Your task to perform on an android device: Add "logitech g910" to the cart on ebay.com Image 0: 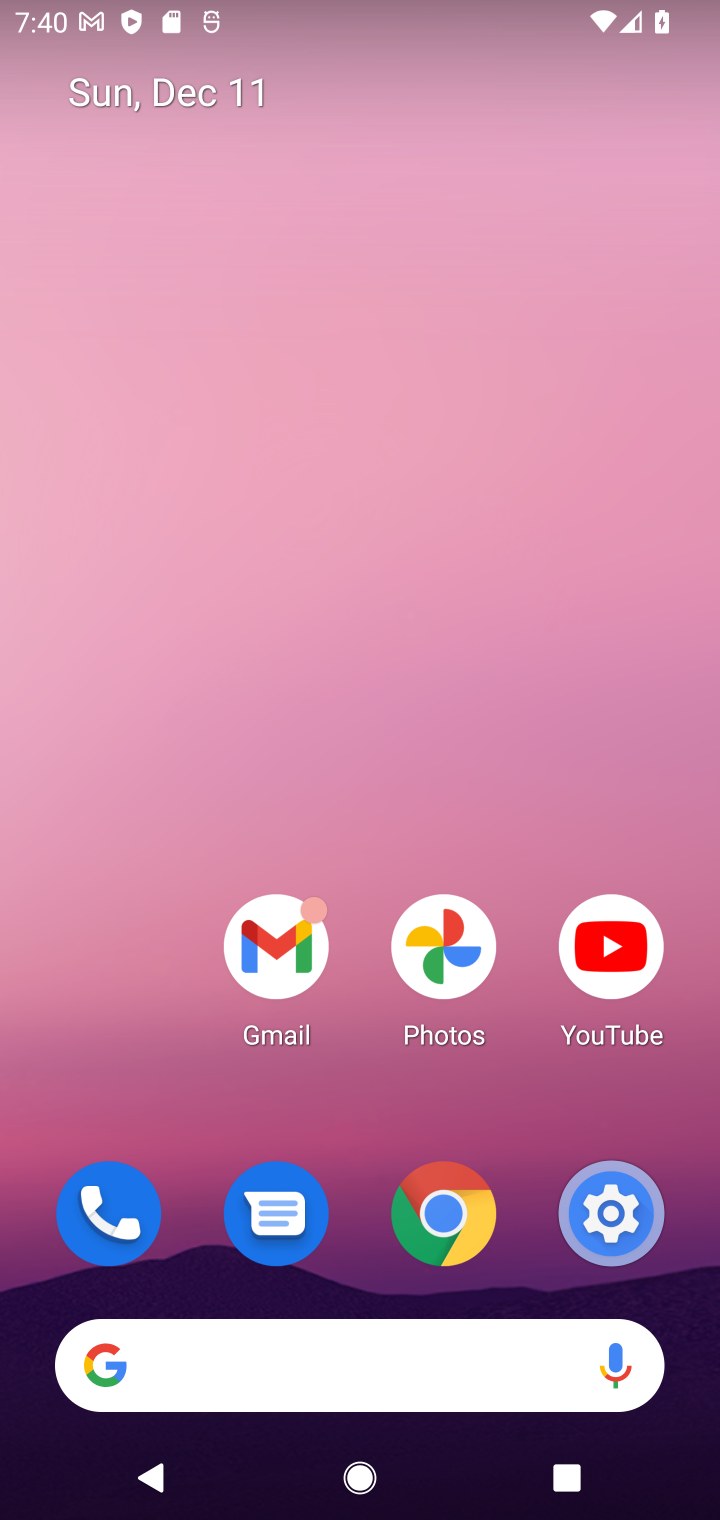
Step 0: click (436, 1365)
Your task to perform on an android device: Add "logitech g910" to the cart on ebay.com Image 1: 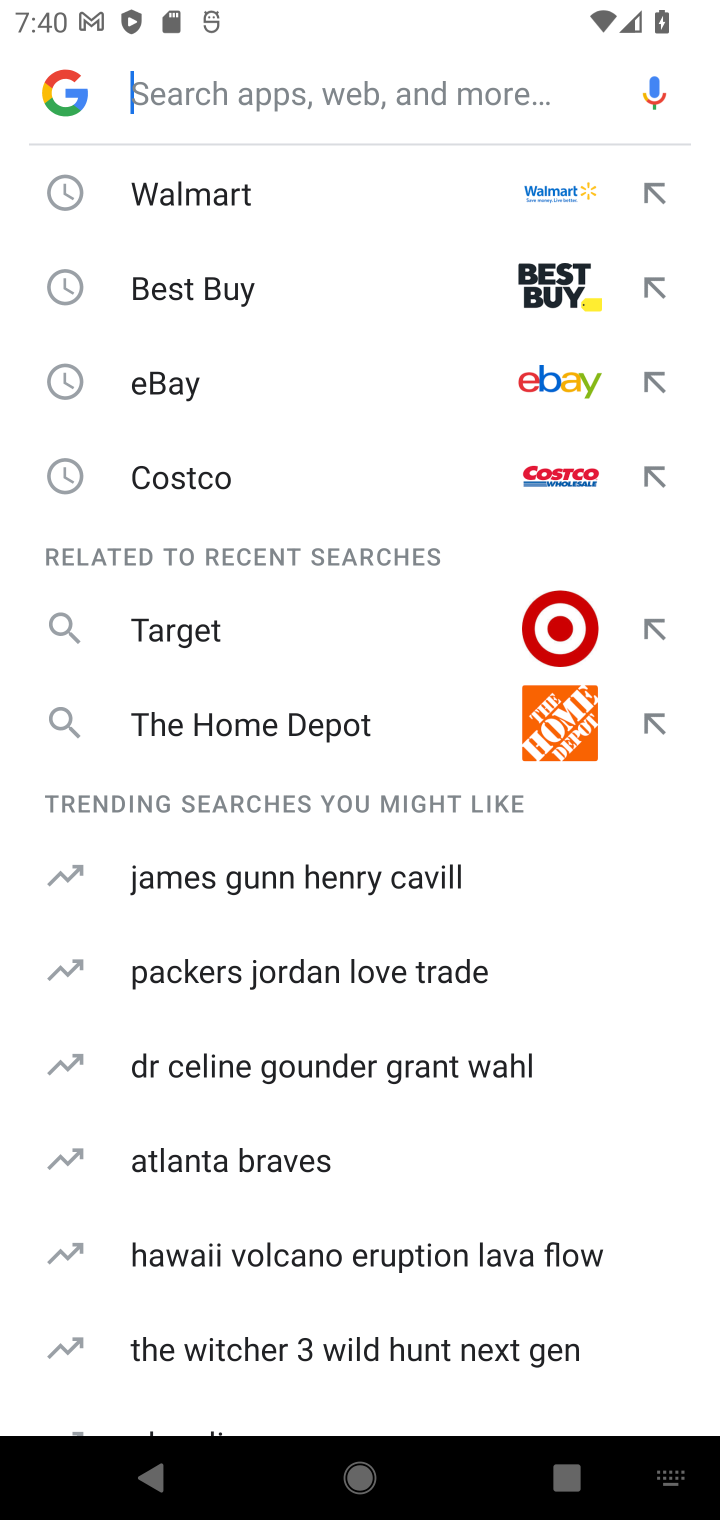
Step 1: type "ebay.com"
Your task to perform on an android device: Add "logitech g910" to the cart on ebay.com Image 2: 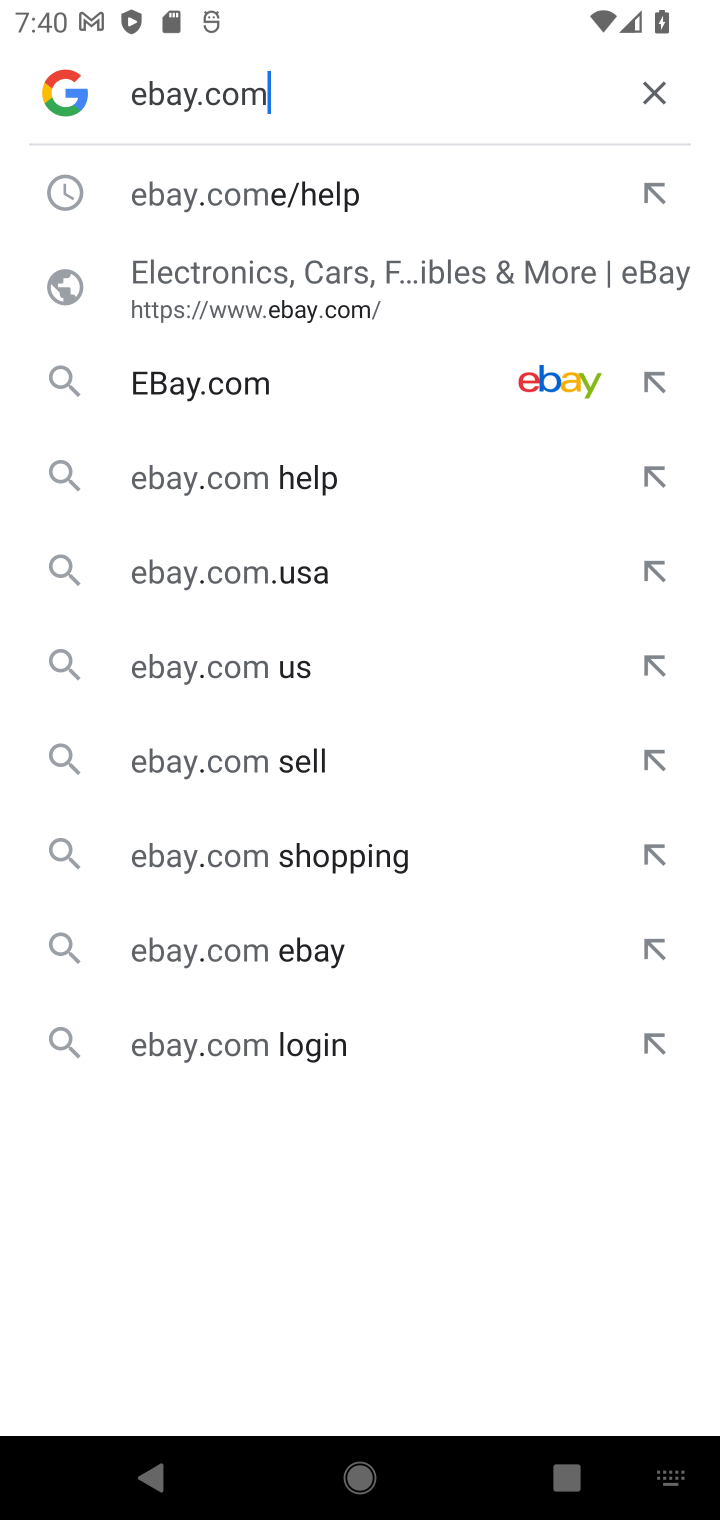
Step 2: click (362, 379)
Your task to perform on an android device: Add "logitech g910" to the cart on ebay.com Image 3: 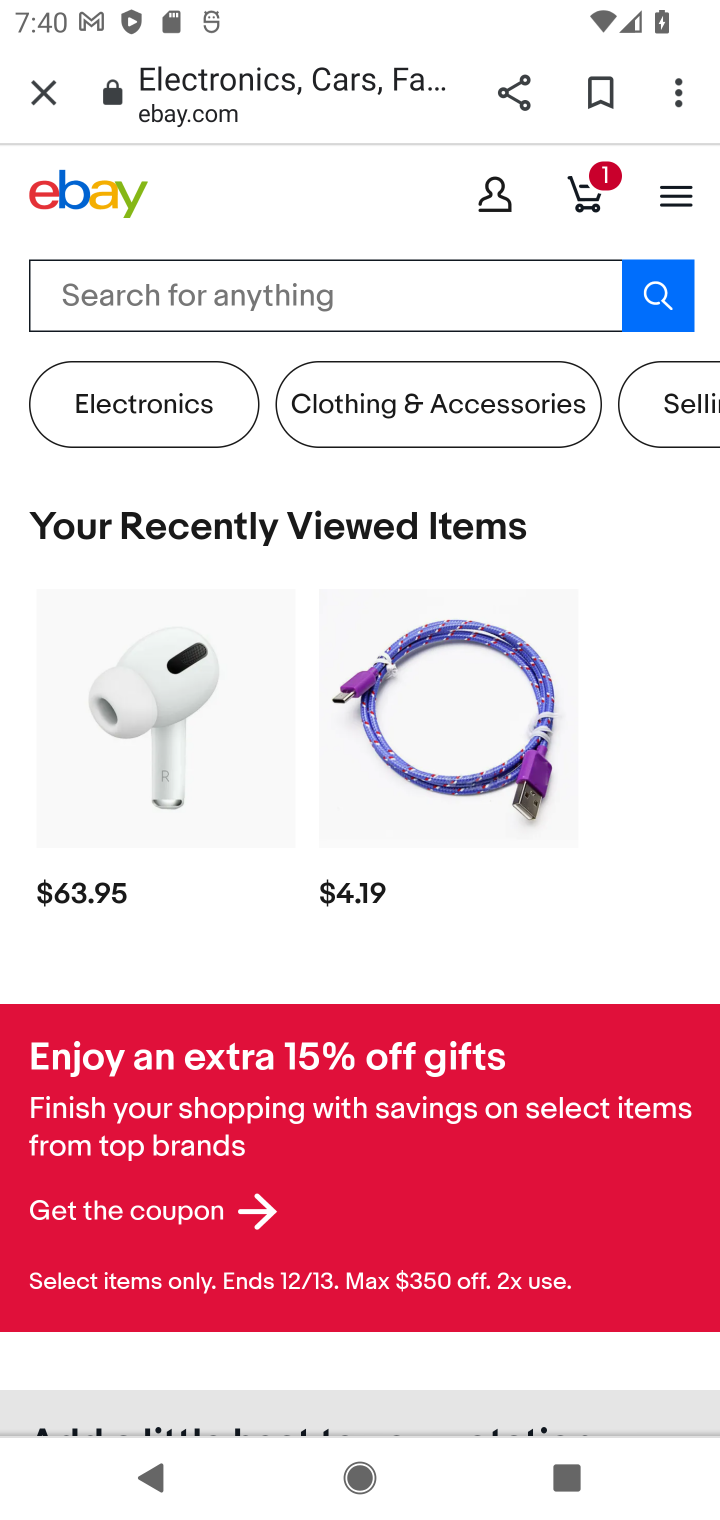
Step 3: click (260, 307)
Your task to perform on an android device: Add "logitech g910" to the cart on ebay.com Image 4: 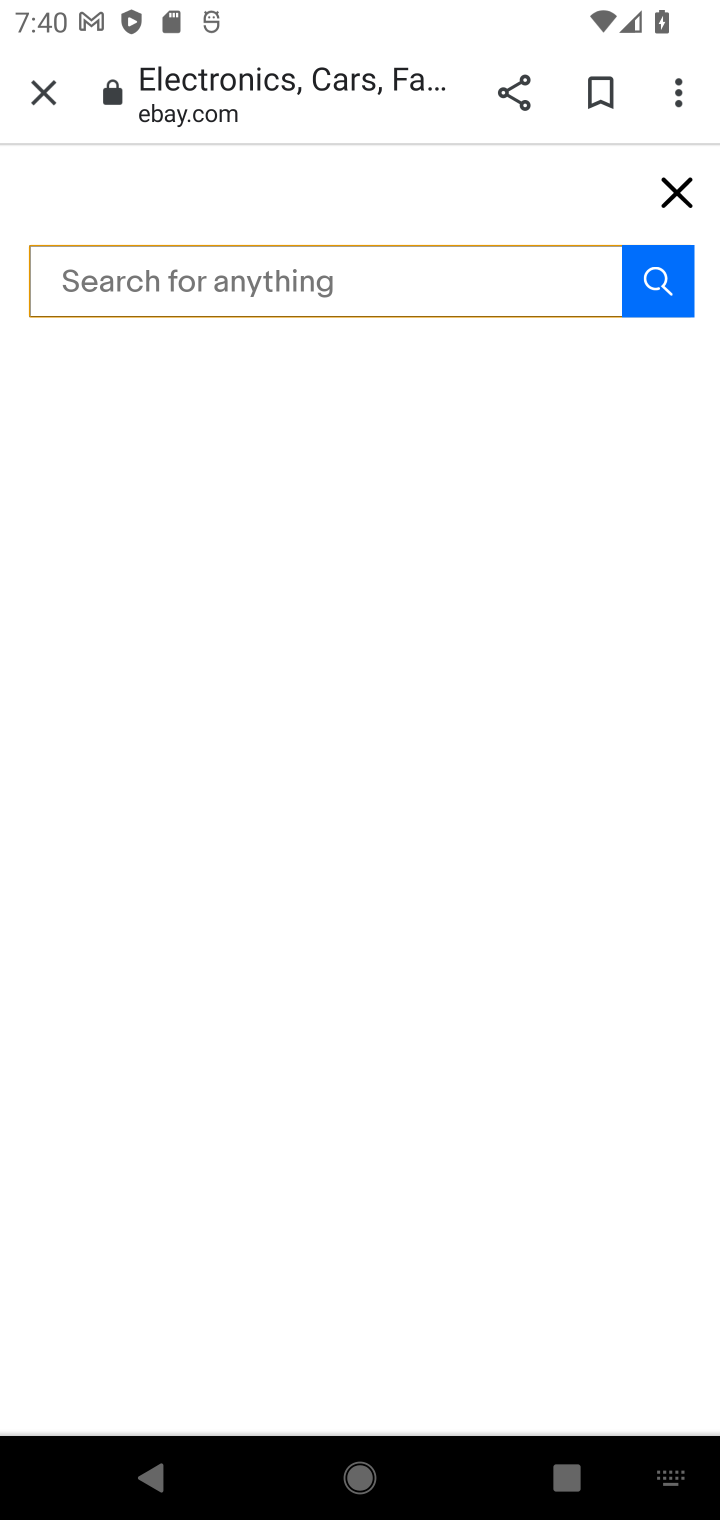
Step 4: type "logitech g910"
Your task to perform on an android device: Add "logitech g910" to the cart on ebay.com Image 5: 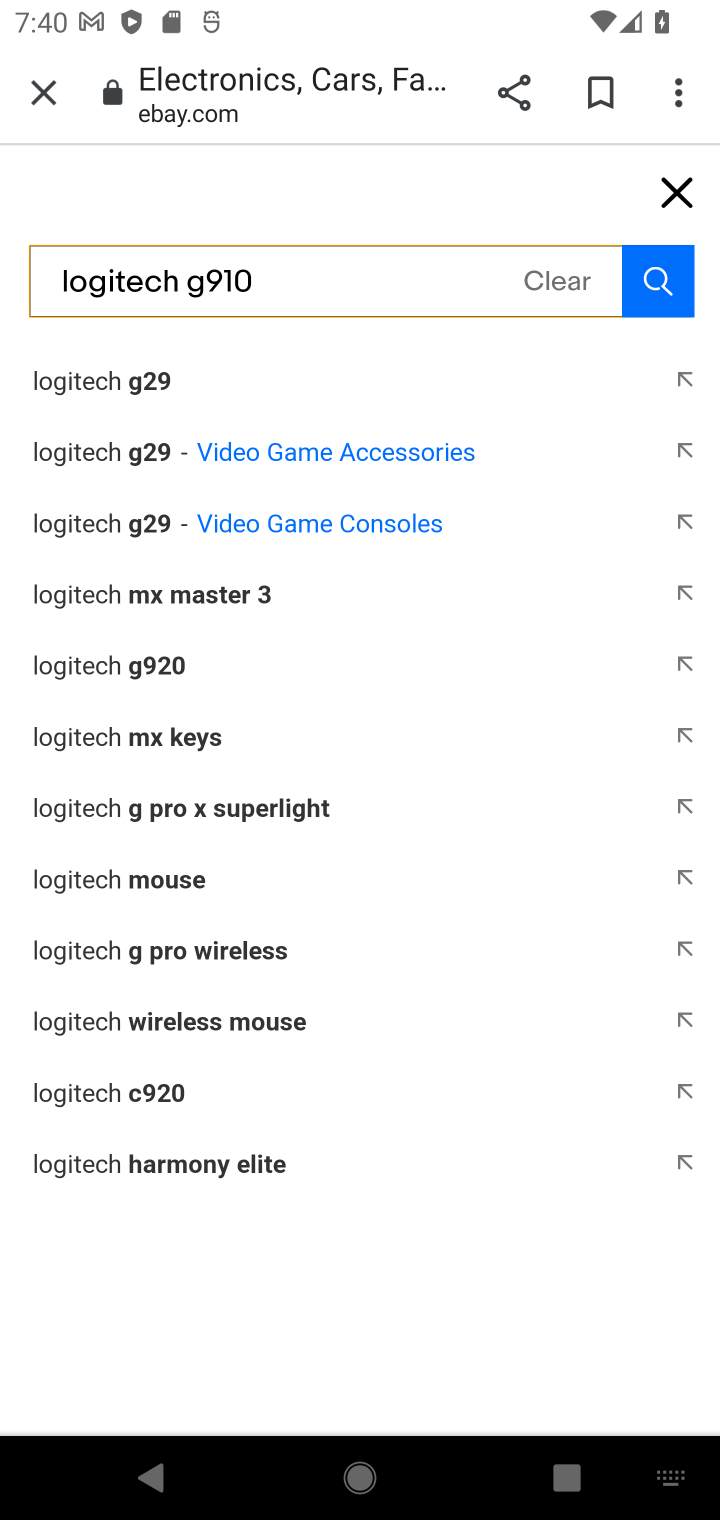
Step 5: click (663, 286)
Your task to perform on an android device: Add "logitech g910" to the cart on ebay.com Image 6: 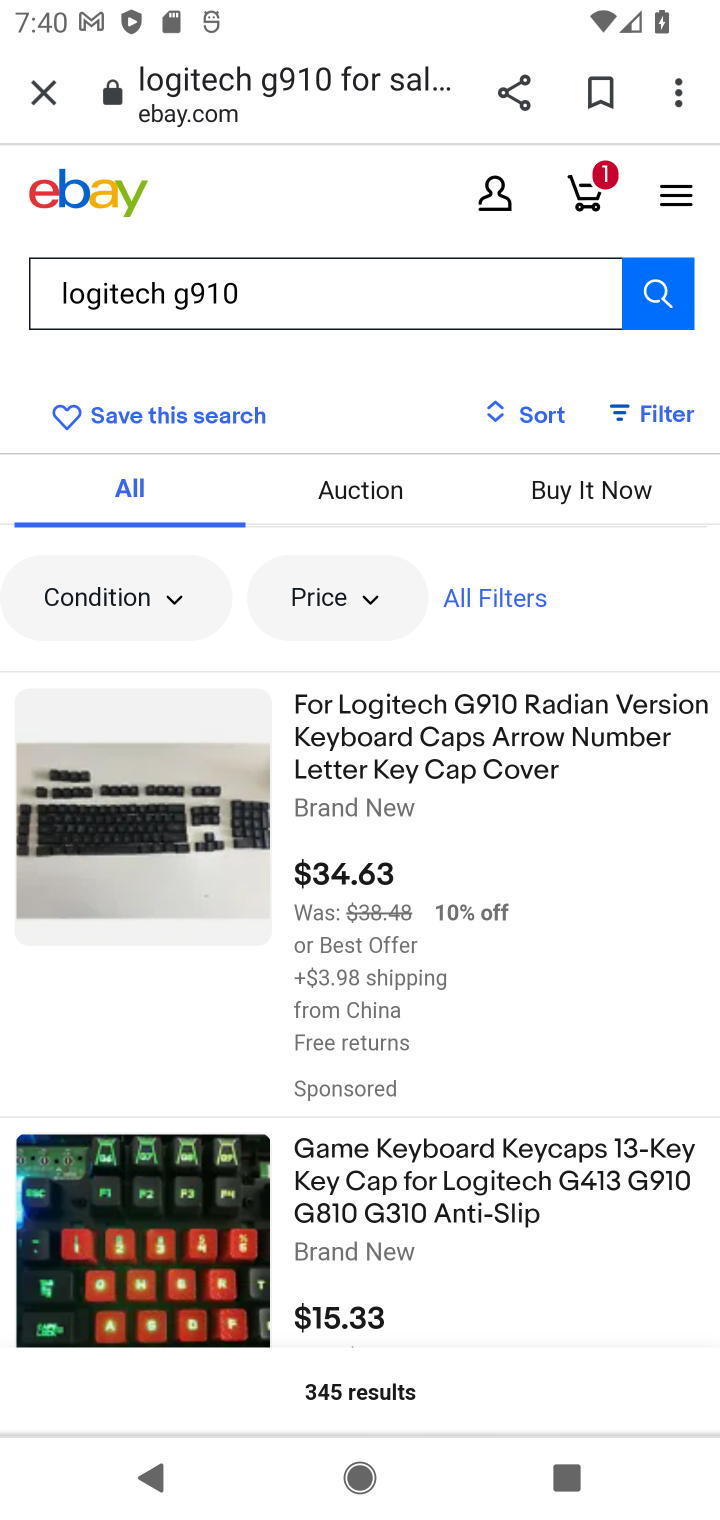
Step 6: click (375, 794)
Your task to perform on an android device: Add "logitech g910" to the cart on ebay.com Image 7: 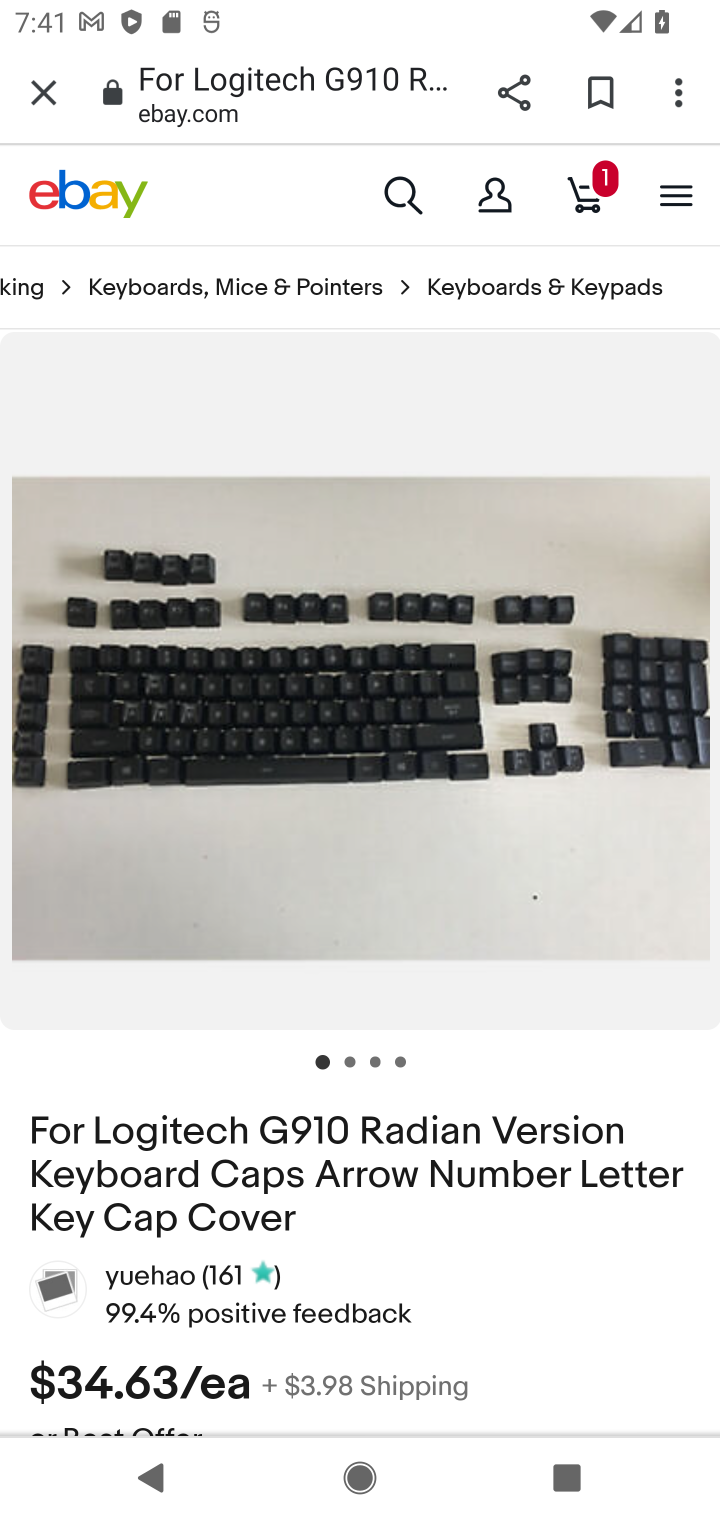
Step 7: drag from (354, 1133) to (382, 504)
Your task to perform on an android device: Add "logitech g910" to the cart on ebay.com Image 8: 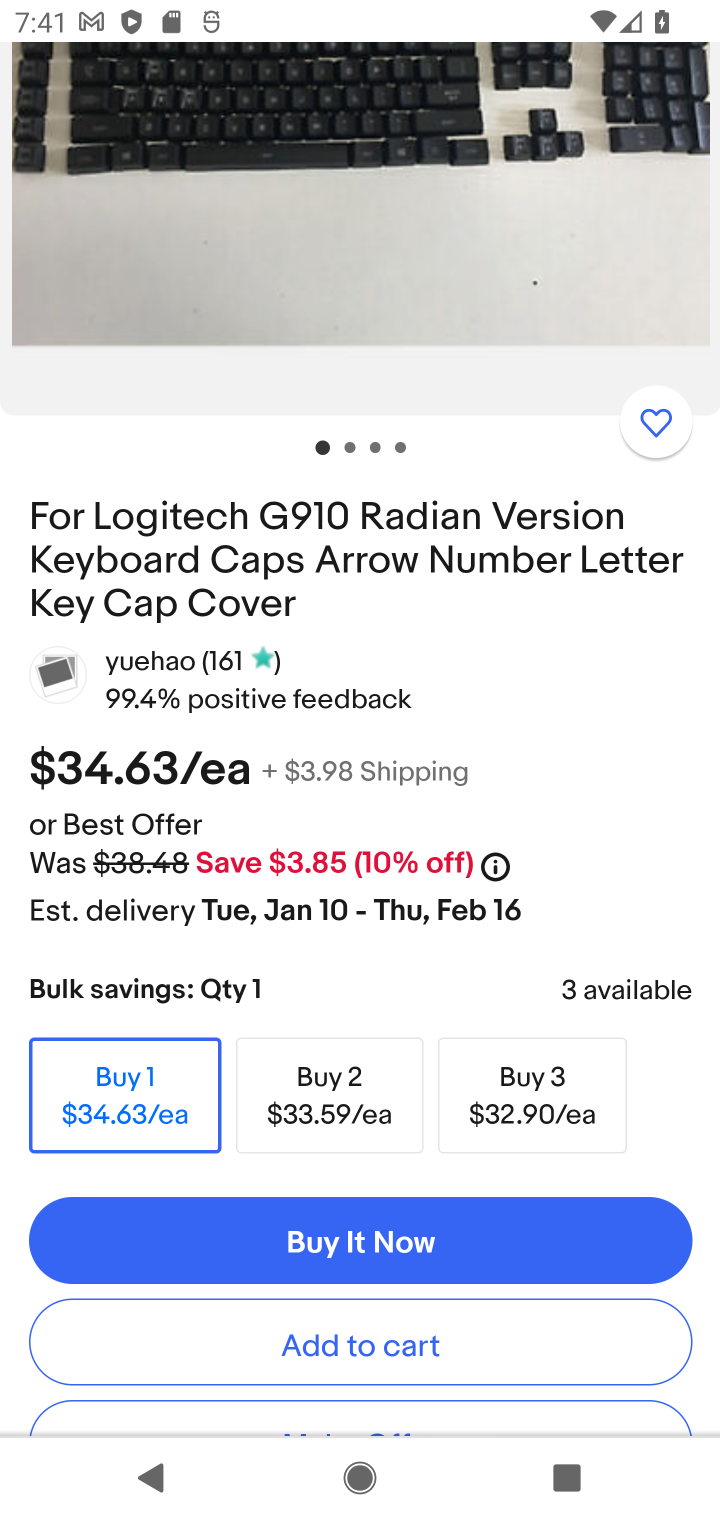
Step 8: click (422, 1302)
Your task to perform on an android device: Add "logitech g910" to the cart on ebay.com Image 9: 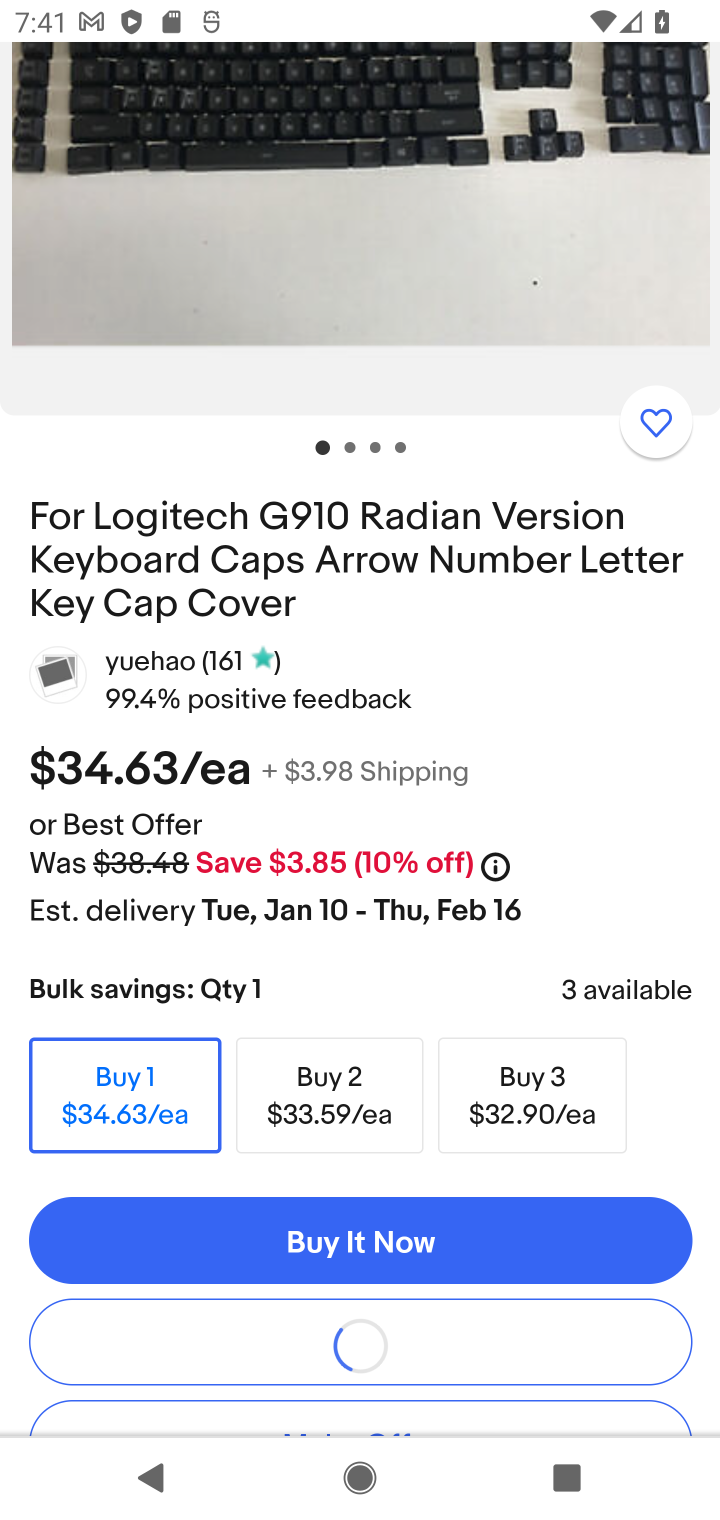
Step 9: click (414, 1350)
Your task to perform on an android device: Add "logitech g910" to the cart on ebay.com Image 10: 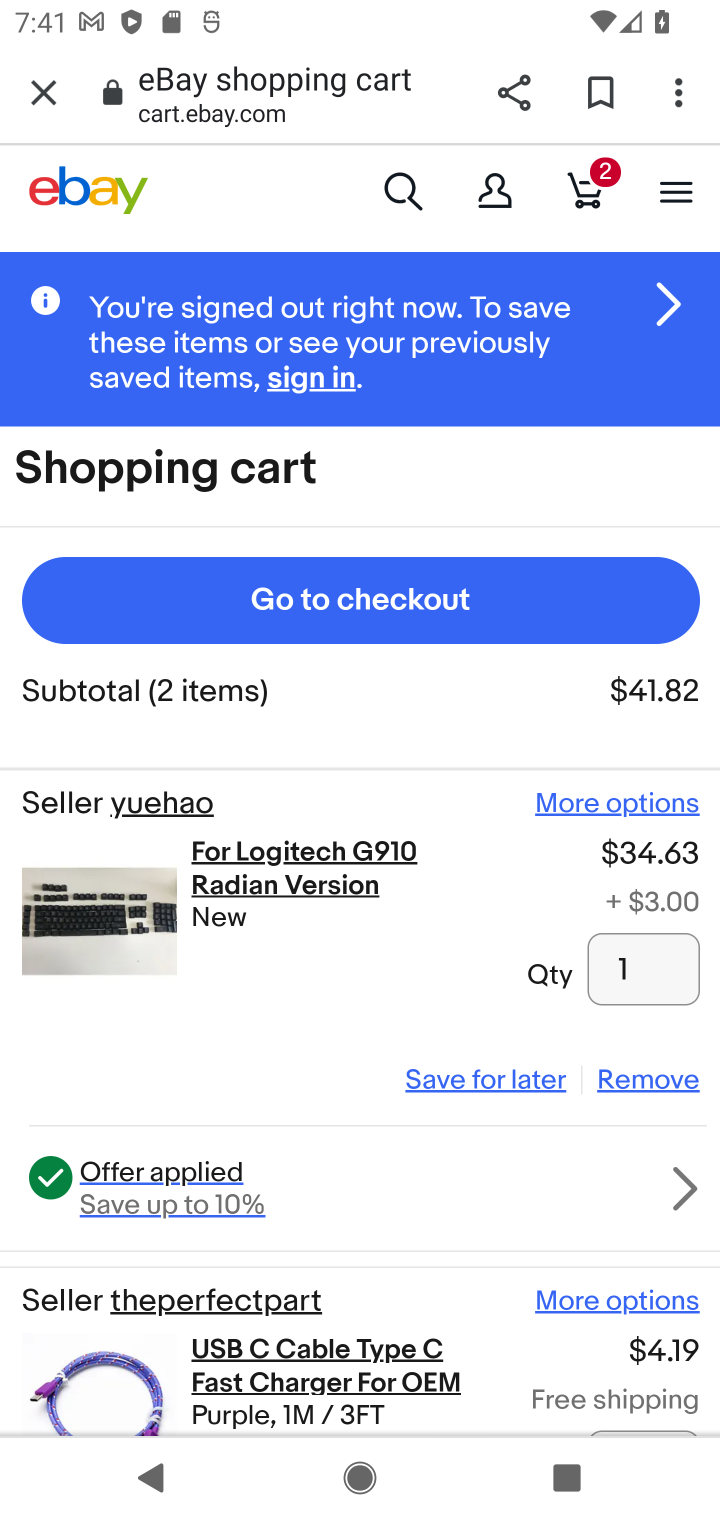
Step 10: task complete